Your task to perform on an android device: open wifi settings Image 0: 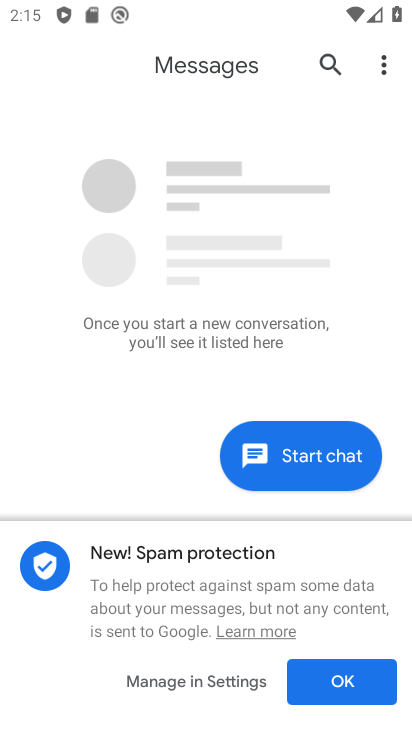
Step 0: press home button
Your task to perform on an android device: open wifi settings Image 1: 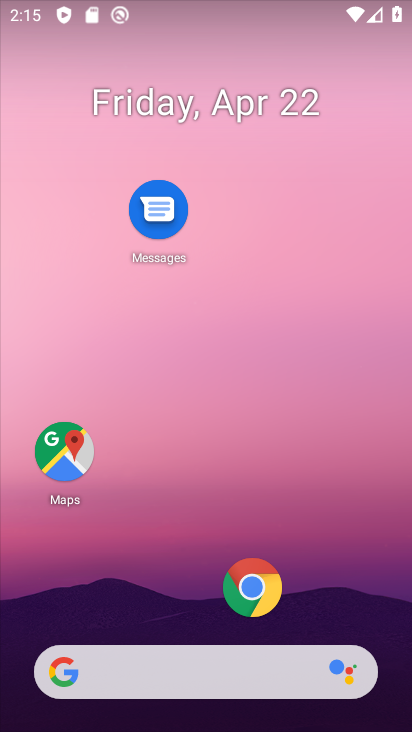
Step 1: drag from (180, 615) to (225, 179)
Your task to perform on an android device: open wifi settings Image 2: 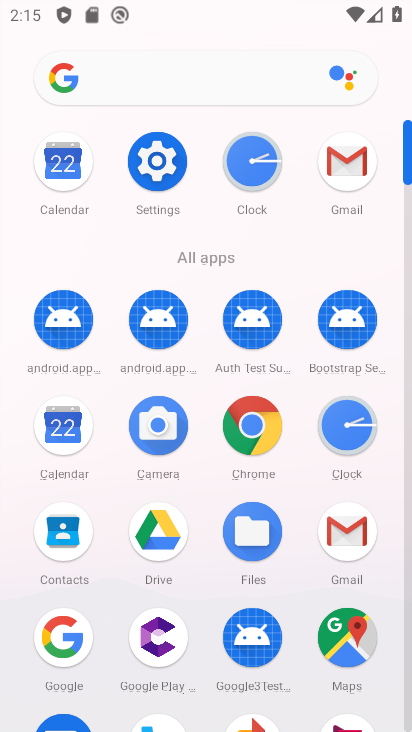
Step 2: click (161, 171)
Your task to perform on an android device: open wifi settings Image 3: 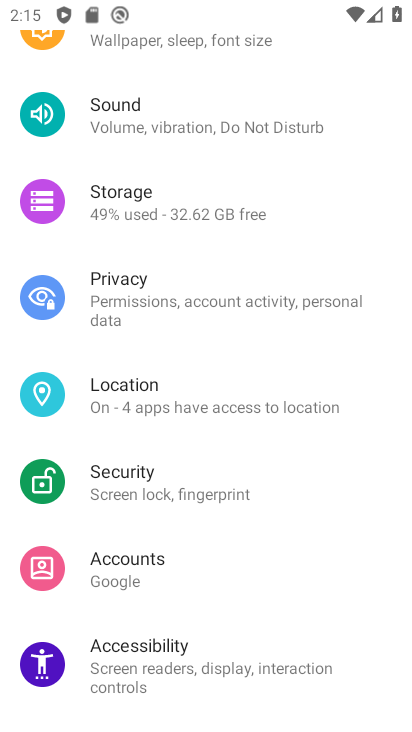
Step 3: drag from (198, 93) to (201, 667)
Your task to perform on an android device: open wifi settings Image 4: 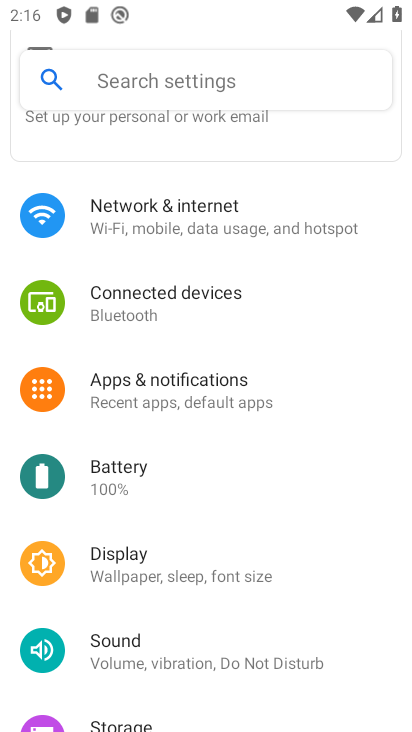
Step 4: click (214, 234)
Your task to perform on an android device: open wifi settings Image 5: 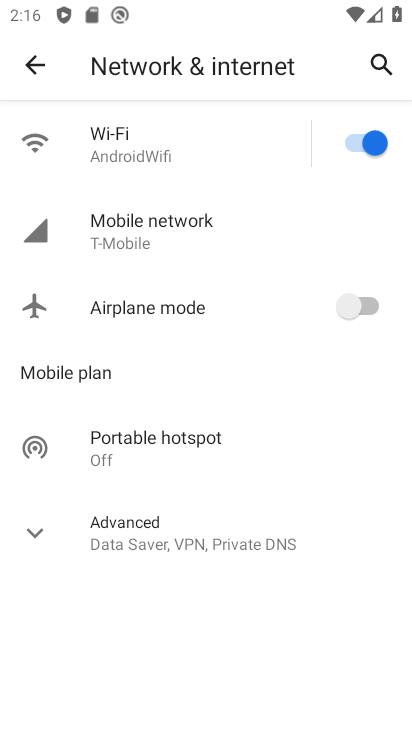
Step 5: click (237, 136)
Your task to perform on an android device: open wifi settings Image 6: 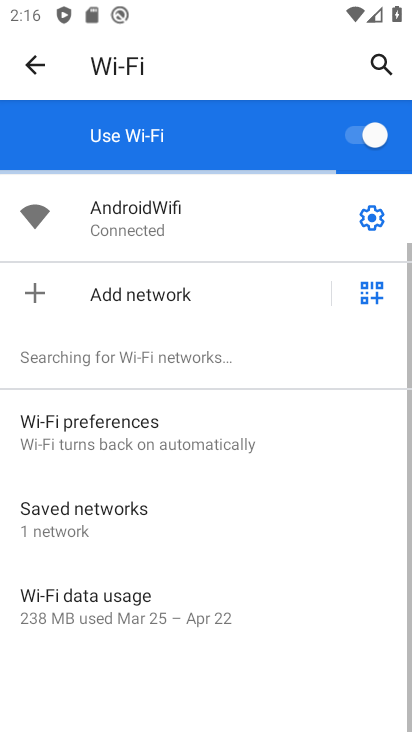
Step 6: task complete